Your task to perform on an android device: Clear all items from cart on walmart. Search for panasonic triple a on walmart, select the first entry, and add it to the cart. Image 0: 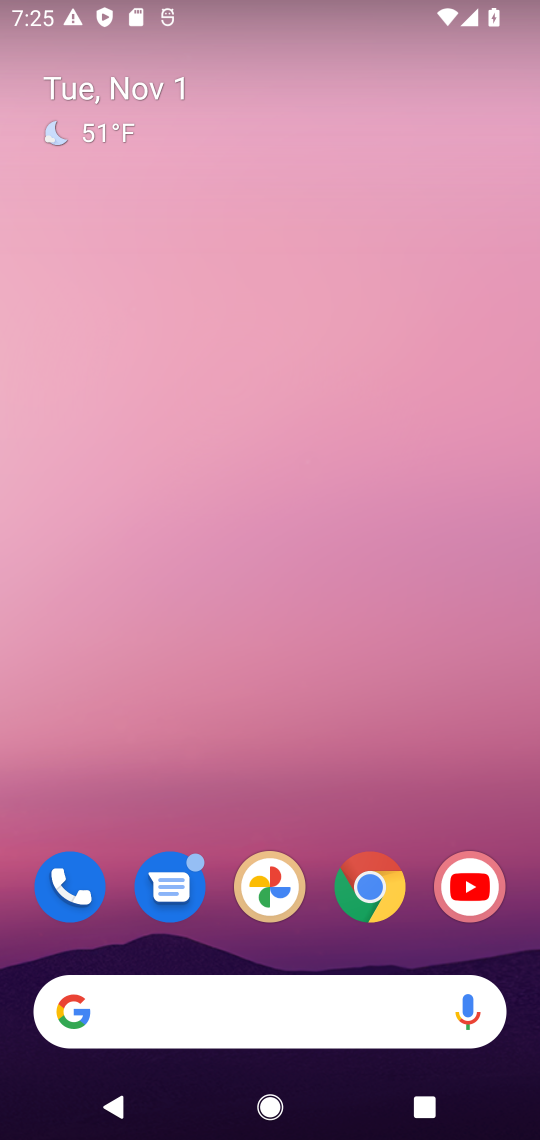
Step 0: drag from (325, 625) to (319, 268)
Your task to perform on an android device: Clear all items from cart on walmart. Search for panasonic triple a on walmart, select the first entry, and add it to the cart. Image 1: 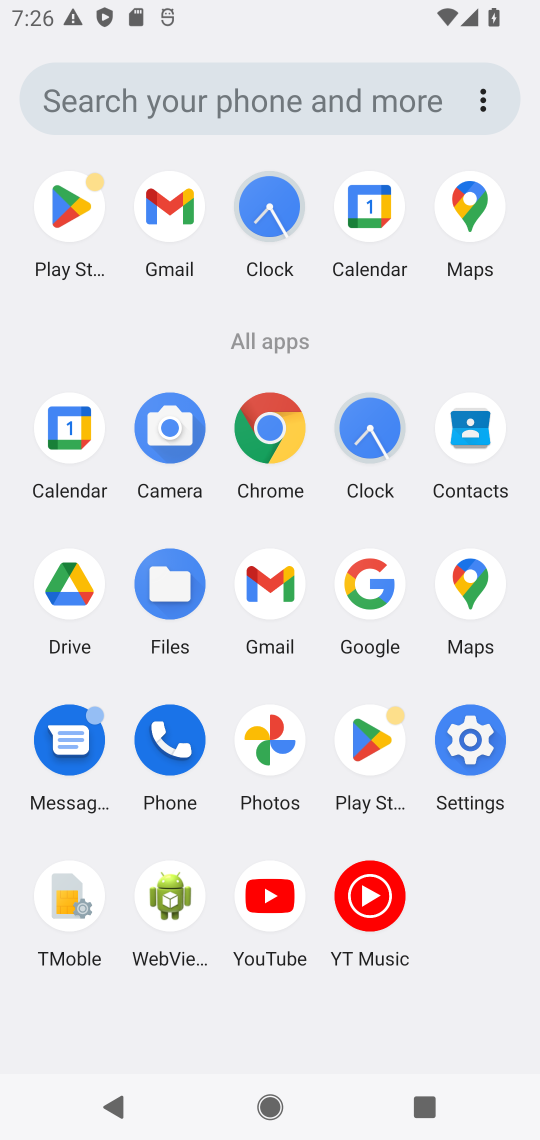
Step 1: click (372, 601)
Your task to perform on an android device: Clear all items from cart on walmart. Search for panasonic triple a on walmart, select the first entry, and add it to the cart. Image 2: 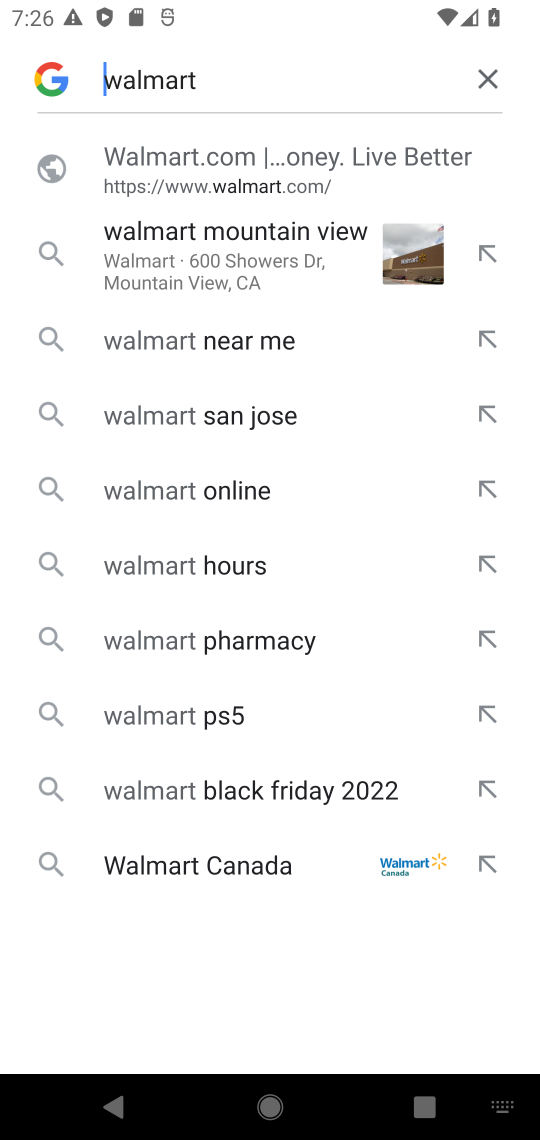
Step 2: click (239, 151)
Your task to perform on an android device: Clear all items from cart on walmart. Search for panasonic triple a on walmart, select the first entry, and add it to the cart. Image 3: 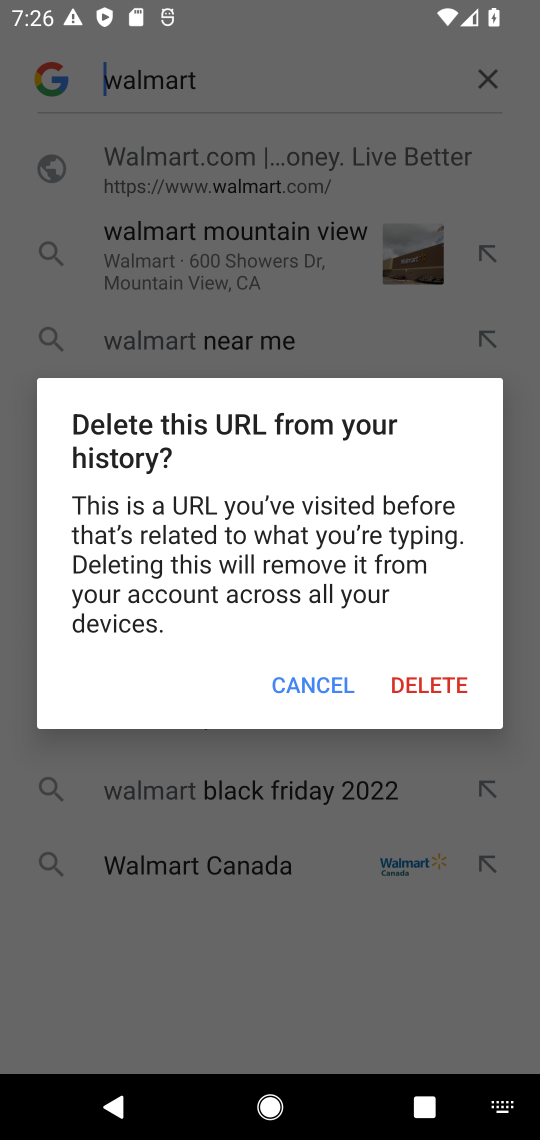
Step 3: click (302, 668)
Your task to perform on an android device: Clear all items from cart on walmart. Search for panasonic triple a on walmart, select the first entry, and add it to the cart. Image 4: 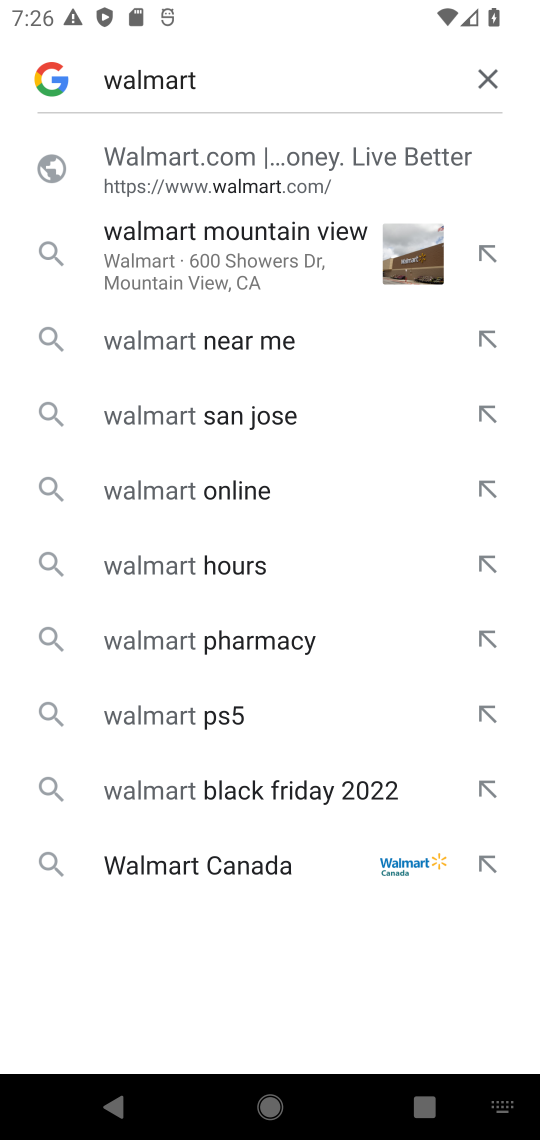
Step 4: click (185, 345)
Your task to perform on an android device: Clear all items from cart on walmart. Search for panasonic triple a on walmart, select the first entry, and add it to the cart. Image 5: 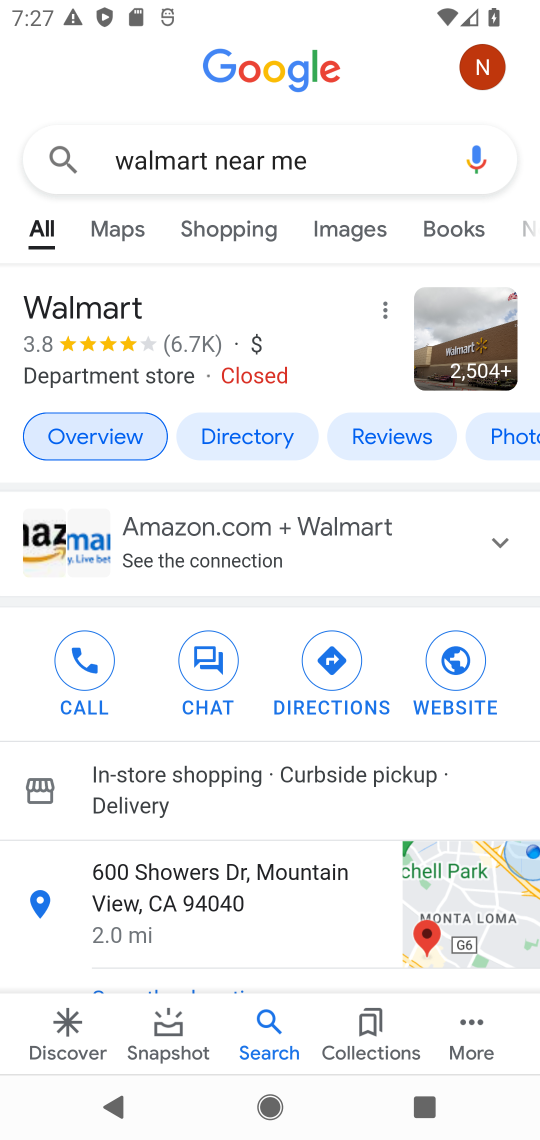
Step 5: drag from (219, 884) to (306, 249)
Your task to perform on an android device: Clear all items from cart on walmart. Search for panasonic triple a on walmart, select the first entry, and add it to the cart. Image 6: 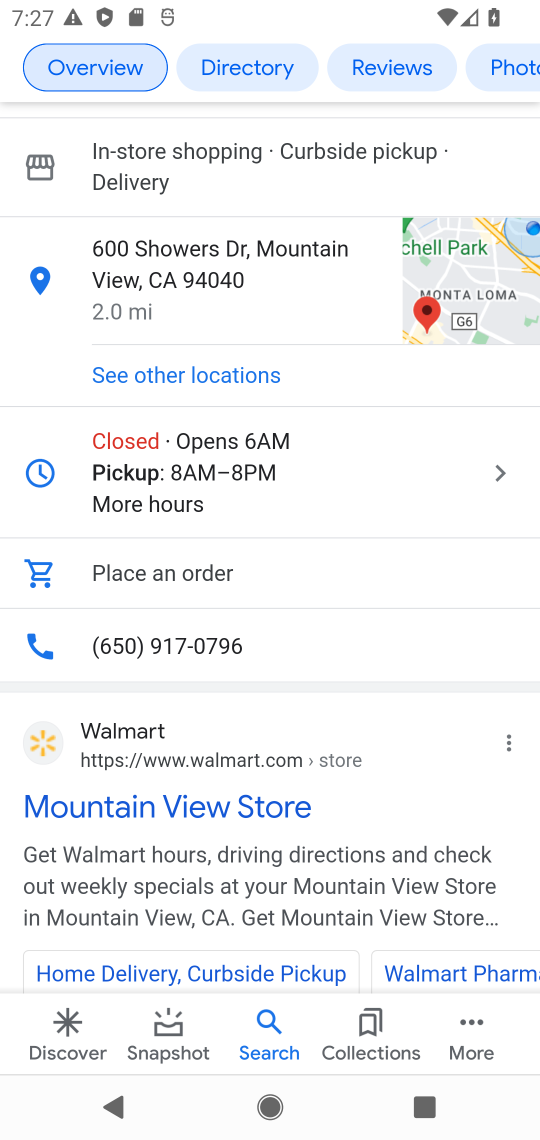
Step 6: drag from (209, 910) to (250, 628)
Your task to perform on an android device: Clear all items from cart on walmart. Search for panasonic triple a on walmart, select the first entry, and add it to the cart. Image 7: 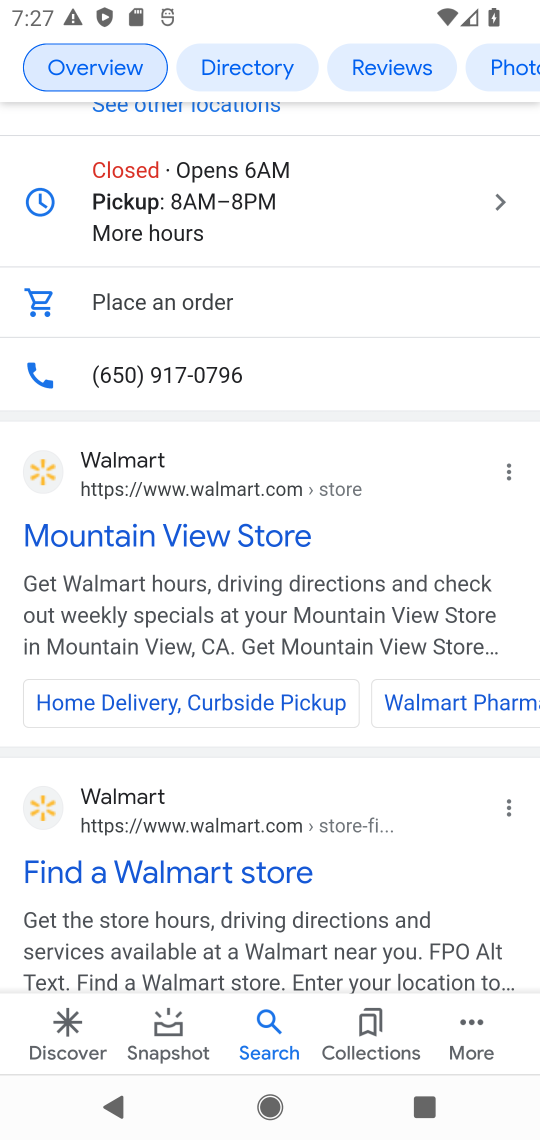
Step 7: click (175, 529)
Your task to perform on an android device: Clear all items from cart on walmart. Search for panasonic triple a on walmart, select the first entry, and add it to the cart. Image 8: 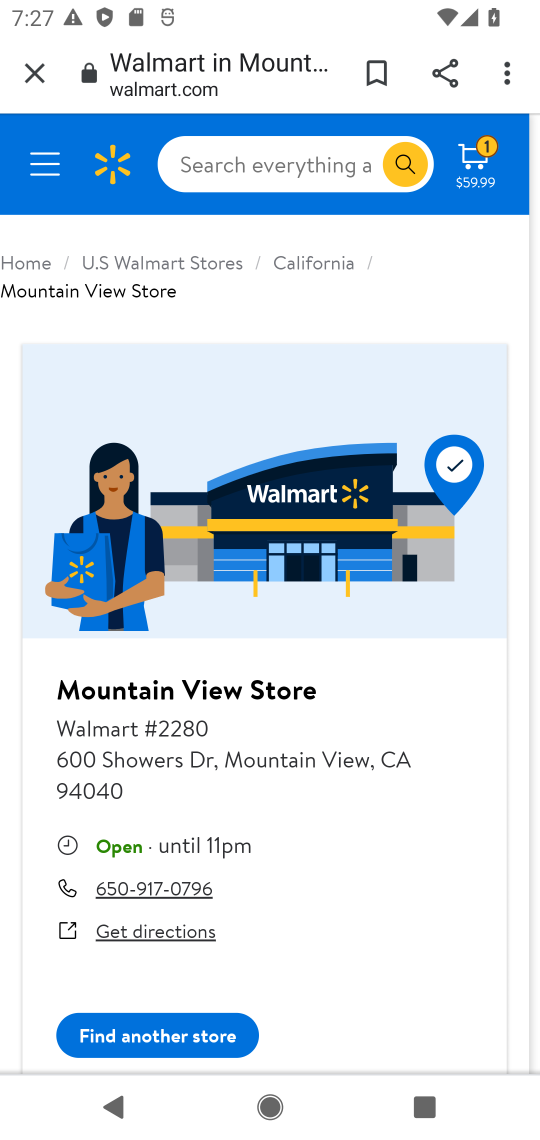
Step 8: click (290, 169)
Your task to perform on an android device: Clear all items from cart on walmart. Search for panasonic triple a on walmart, select the first entry, and add it to the cart. Image 9: 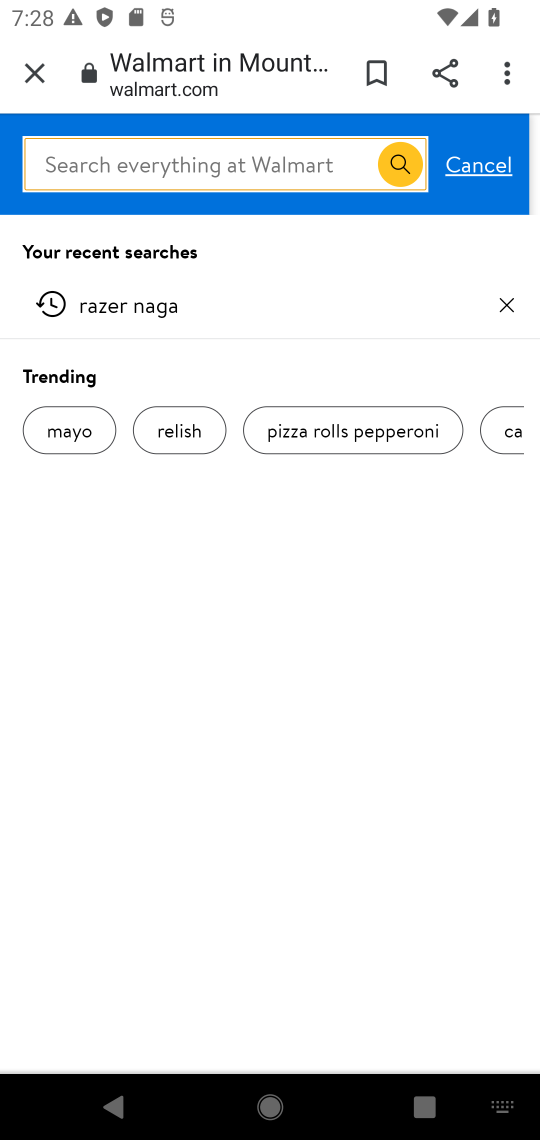
Step 9: click (139, 155)
Your task to perform on an android device: Clear all items from cart on walmart. Search for panasonic triple a on walmart, select the first entry, and add it to the cart. Image 10: 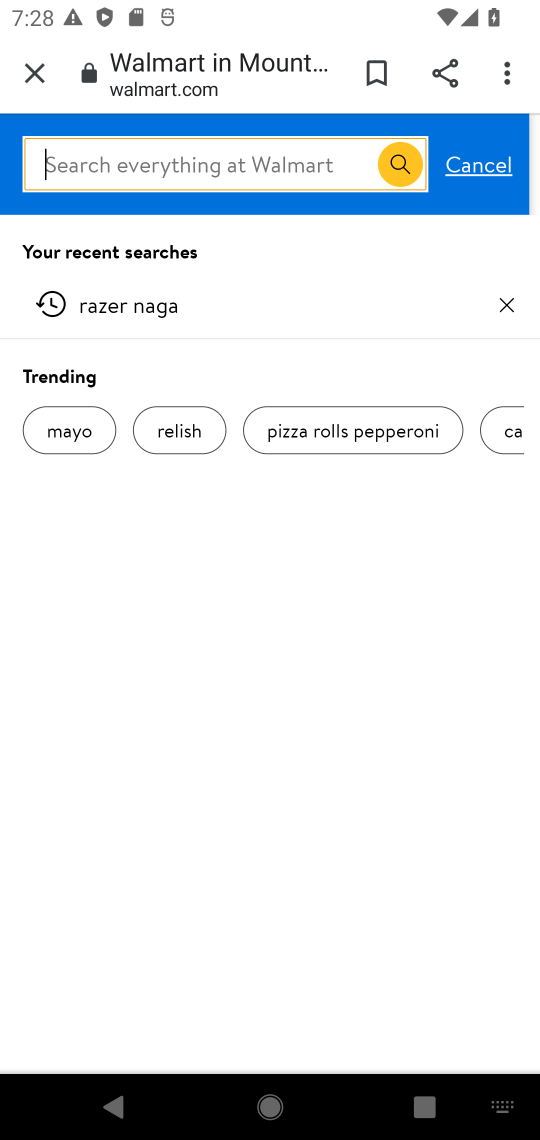
Step 10: type " panasonic triple "
Your task to perform on an android device: Clear all items from cart on walmart. Search for panasonic triple a on walmart, select the first entry, and add it to the cart. Image 11: 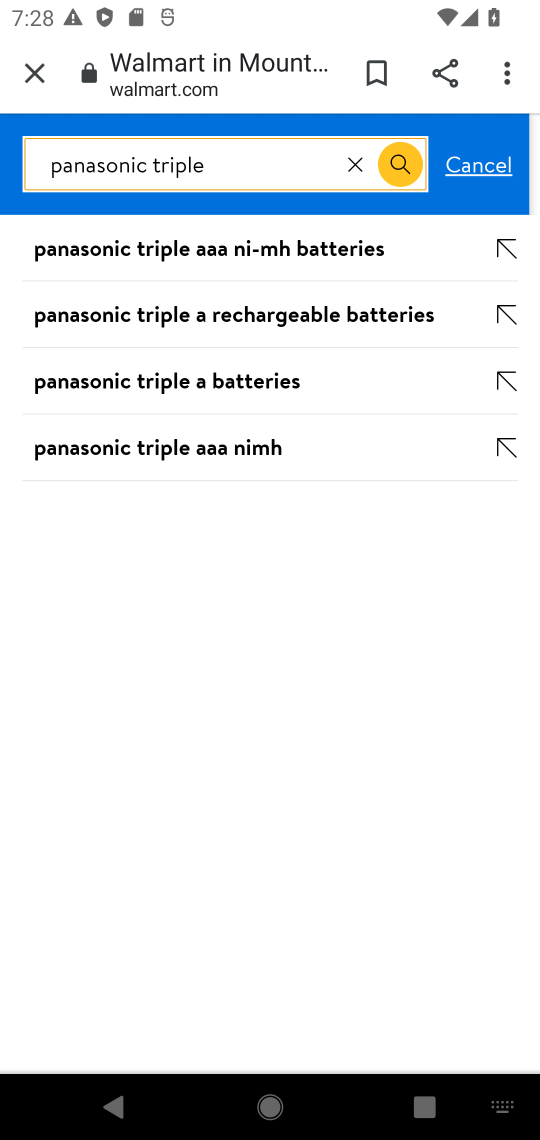
Step 11: click (184, 257)
Your task to perform on an android device: Clear all items from cart on walmart. Search for panasonic triple a on walmart, select the first entry, and add it to the cart. Image 12: 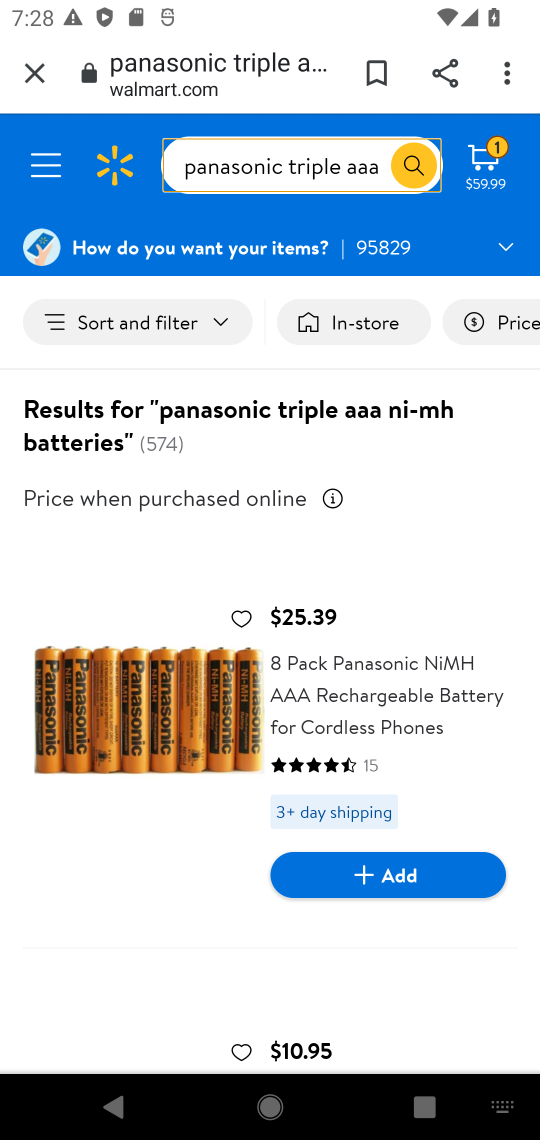
Step 12: click (395, 863)
Your task to perform on an android device: Clear all items from cart on walmart. Search for panasonic triple a on walmart, select the first entry, and add it to the cart. Image 13: 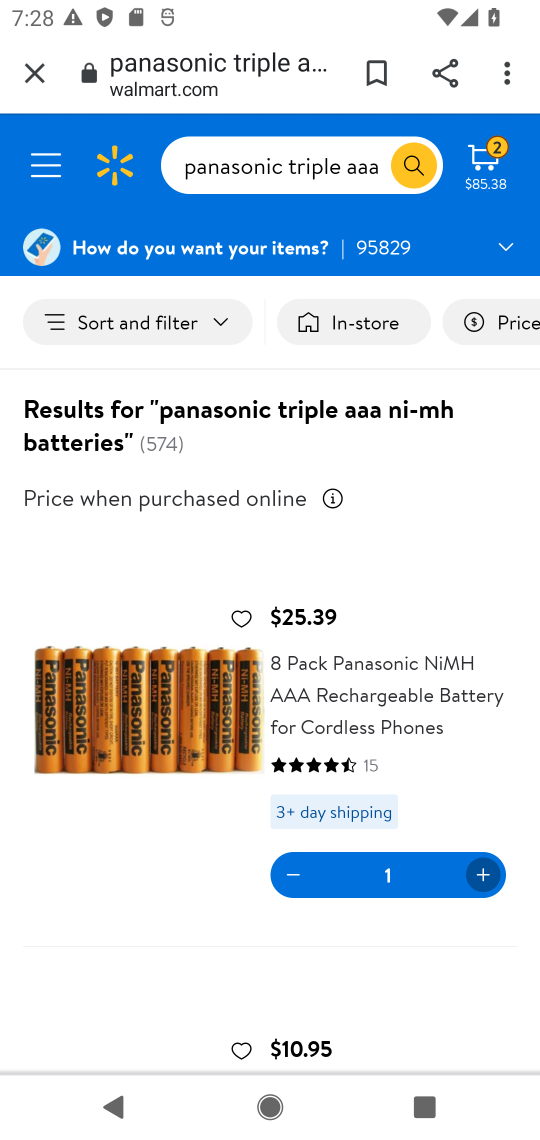
Step 13: task complete